Your task to perform on an android device: stop showing notifications on the lock screen Image 0: 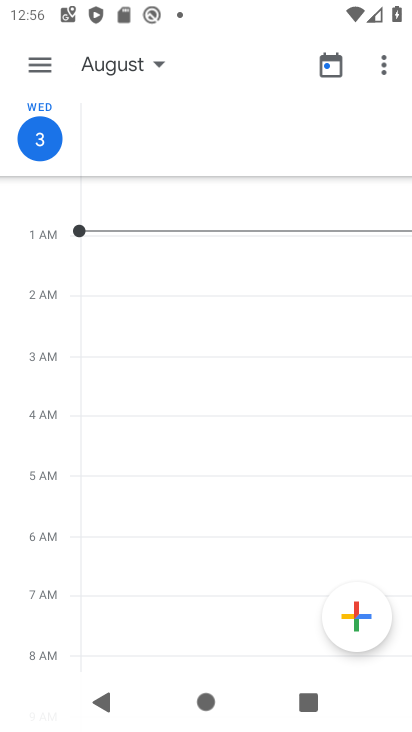
Step 0: drag from (244, 577) to (302, 41)
Your task to perform on an android device: stop showing notifications on the lock screen Image 1: 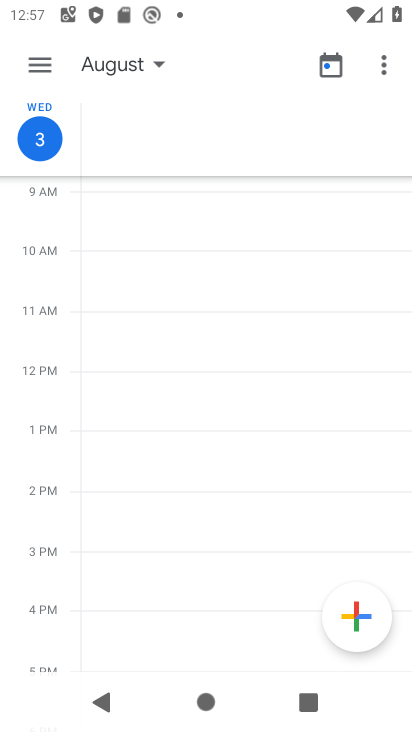
Step 1: press home button
Your task to perform on an android device: stop showing notifications on the lock screen Image 2: 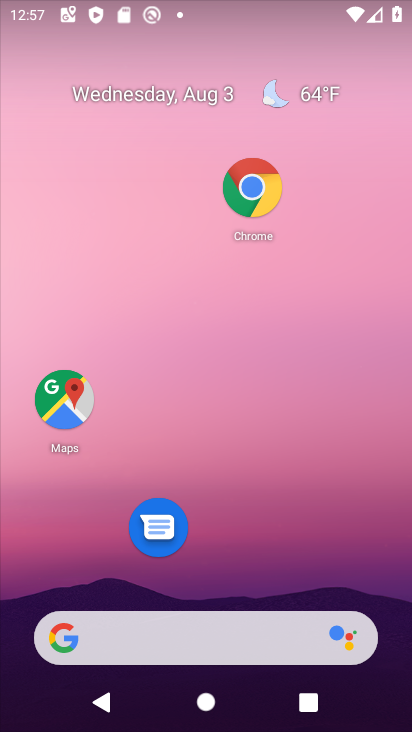
Step 2: drag from (215, 562) to (268, 1)
Your task to perform on an android device: stop showing notifications on the lock screen Image 3: 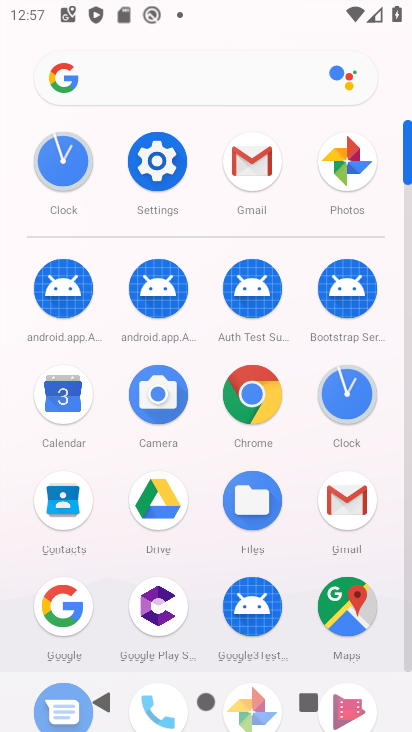
Step 3: click (162, 177)
Your task to perform on an android device: stop showing notifications on the lock screen Image 4: 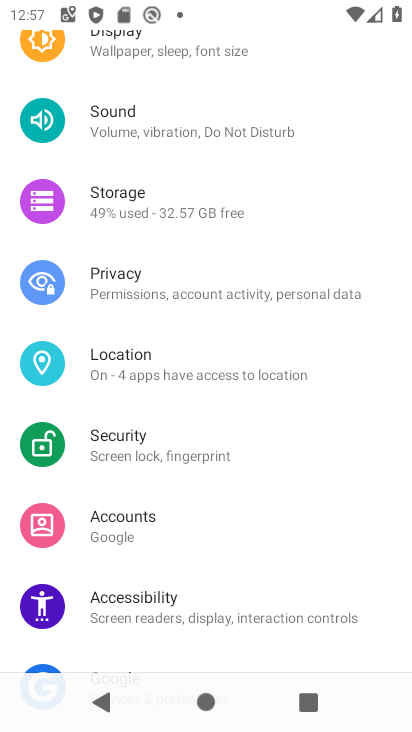
Step 4: drag from (153, 199) to (173, 595)
Your task to perform on an android device: stop showing notifications on the lock screen Image 5: 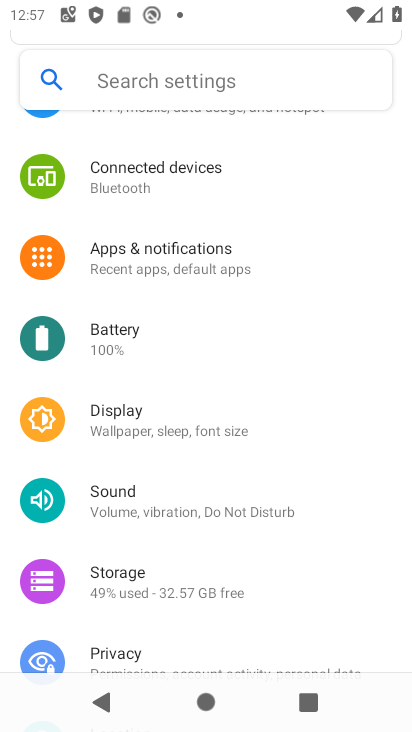
Step 5: click (210, 264)
Your task to perform on an android device: stop showing notifications on the lock screen Image 6: 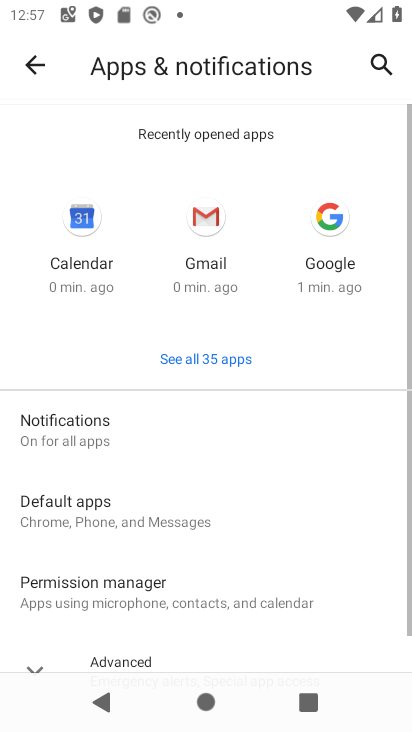
Step 6: click (108, 440)
Your task to perform on an android device: stop showing notifications on the lock screen Image 7: 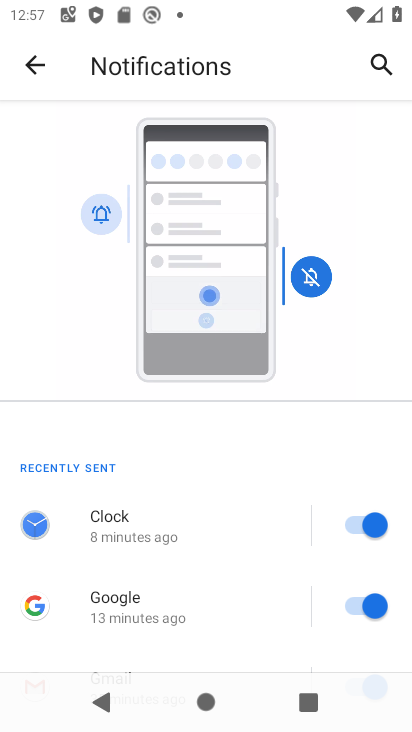
Step 7: drag from (199, 536) to (185, 119)
Your task to perform on an android device: stop showing notifications on the lock screen Image 8: 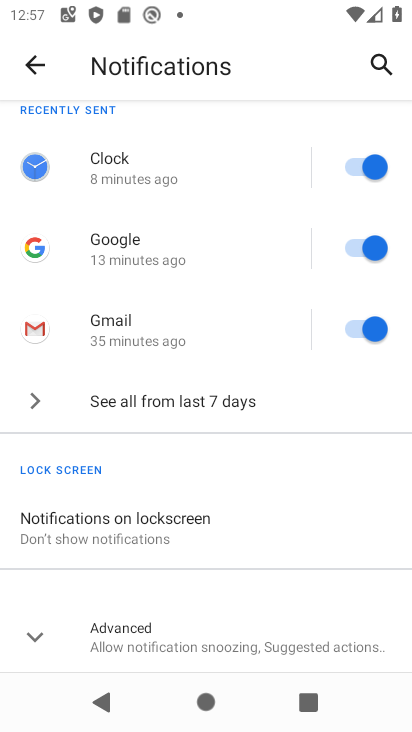
Step 8: click (181, 537)
Your task to perform on an android device: stop showing notifications on the lock screen Image 9: 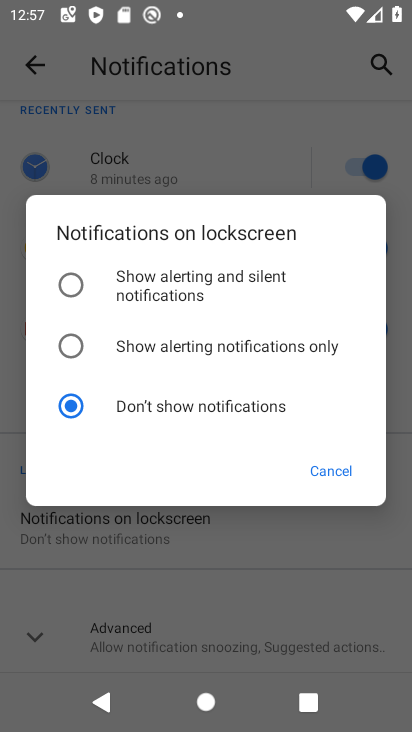
Step 9: task complete